Your task to perform on an android device: Search for hotels in Tokyo Image 0: 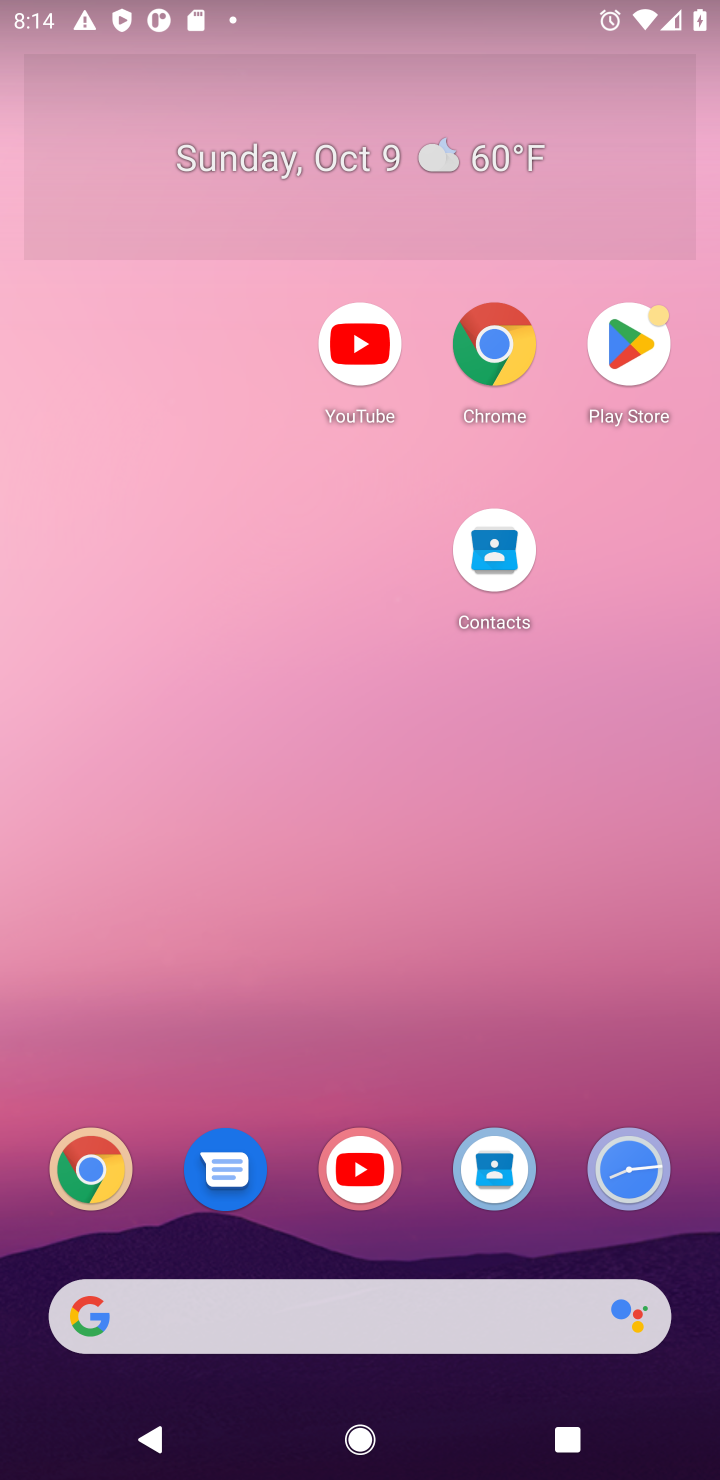
Step 0: drag from (431, 1259) to (357, 555)
Your task to perform on an android device: Search for hotels in Tokyo Image 1: 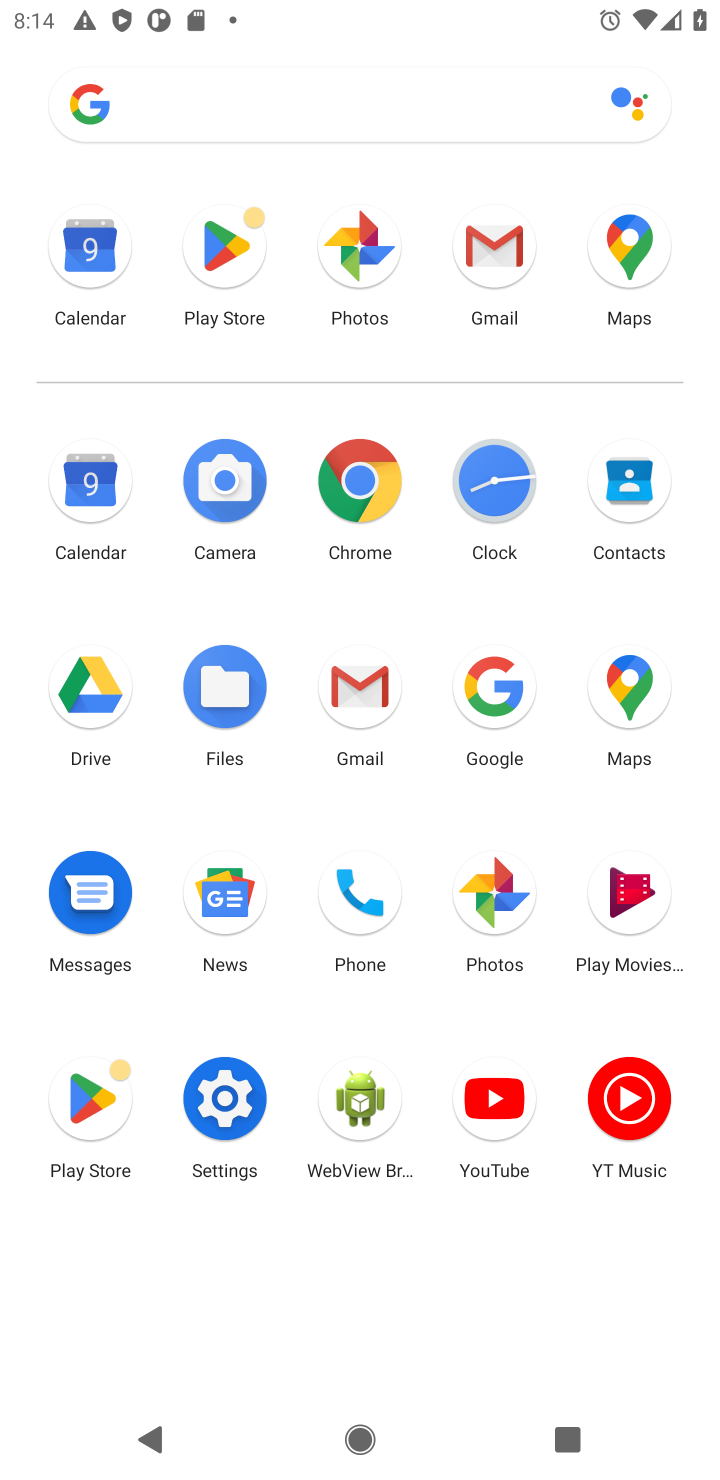
Step 1: click (364, 473)
Your task to perform on an android device: Search for hotels in Tokyo Image 2: 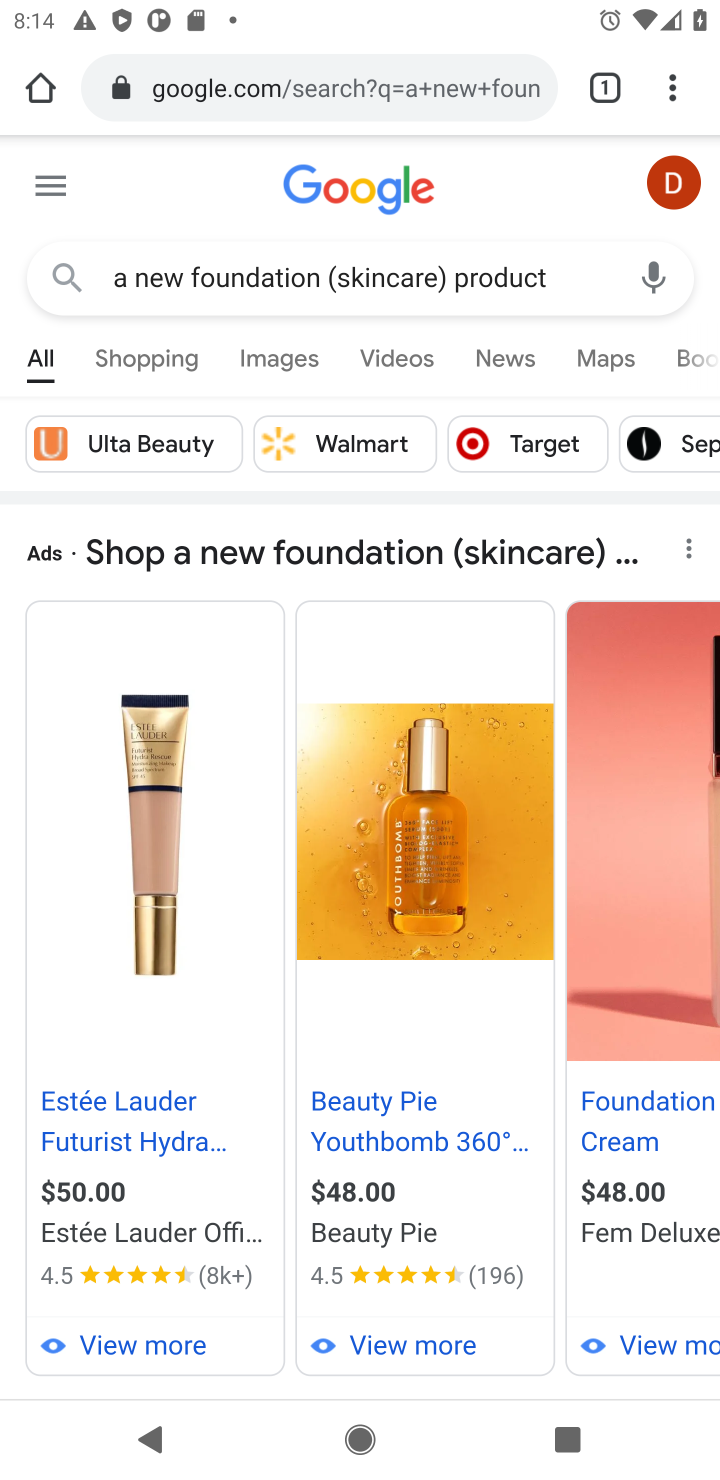
Step 2: click (345, 69)
Your task to perform on an android device: Search for hotels in Tokyo Image 3: 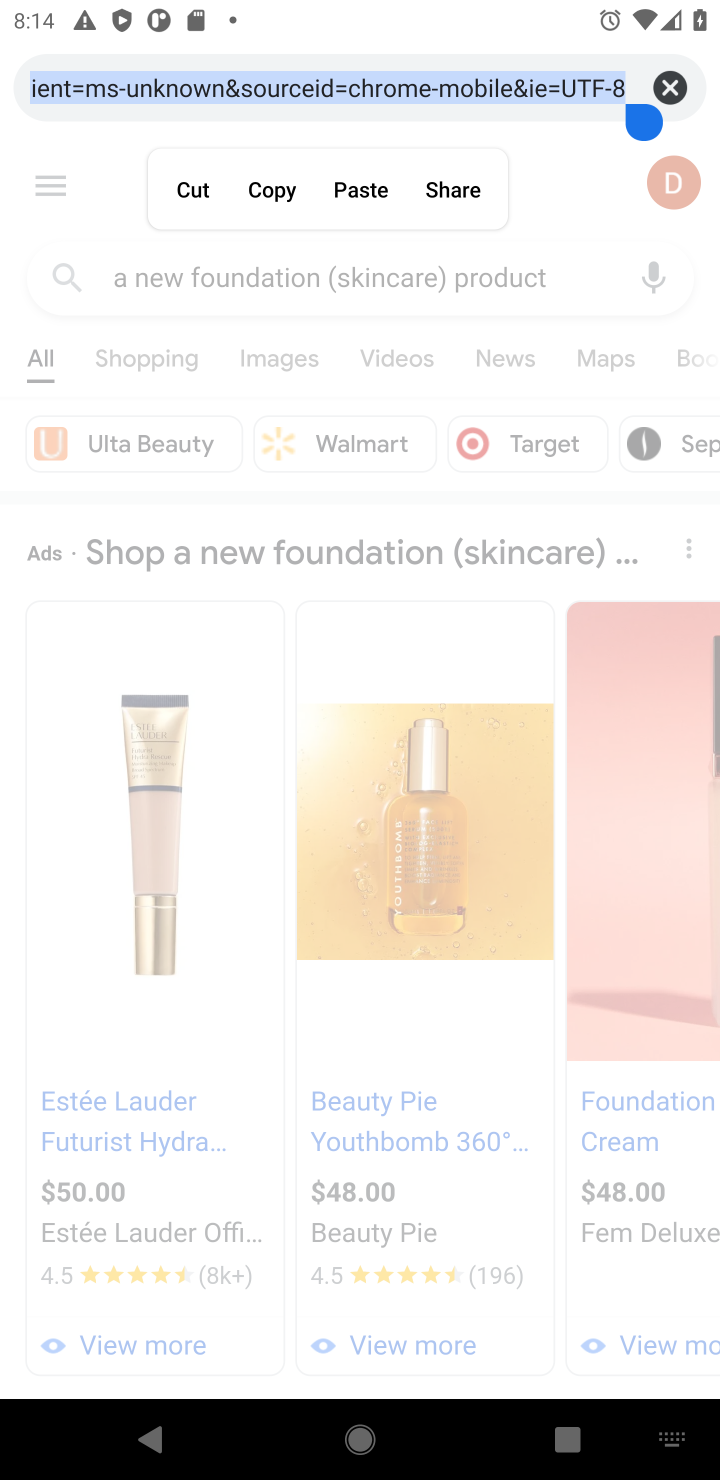
Step 3: type "hotels in Tokyo"
Your task to perform on an android device: Search for hotels in Tokyo Image 4: 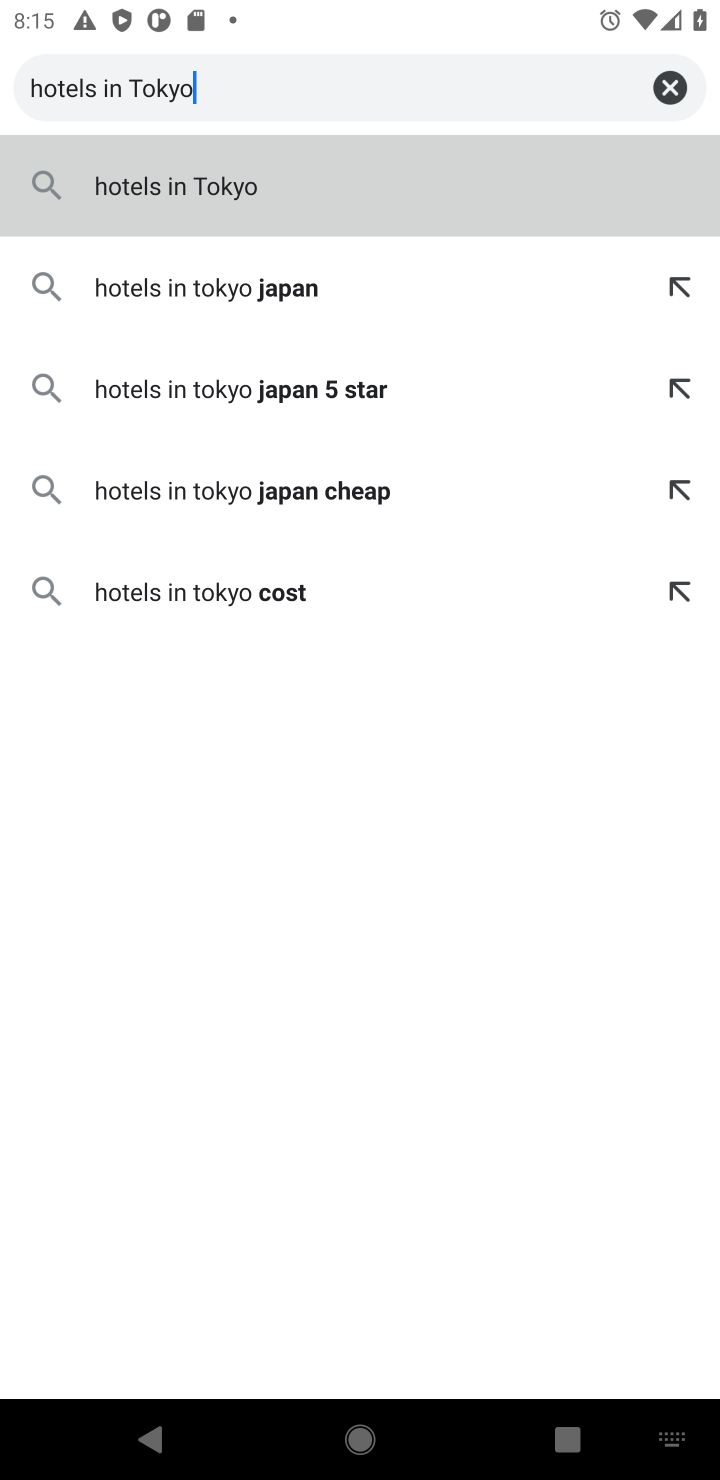
Step 4: press enter
Your task to perform on an android device: Search for hotels in Tokyo Image 5: 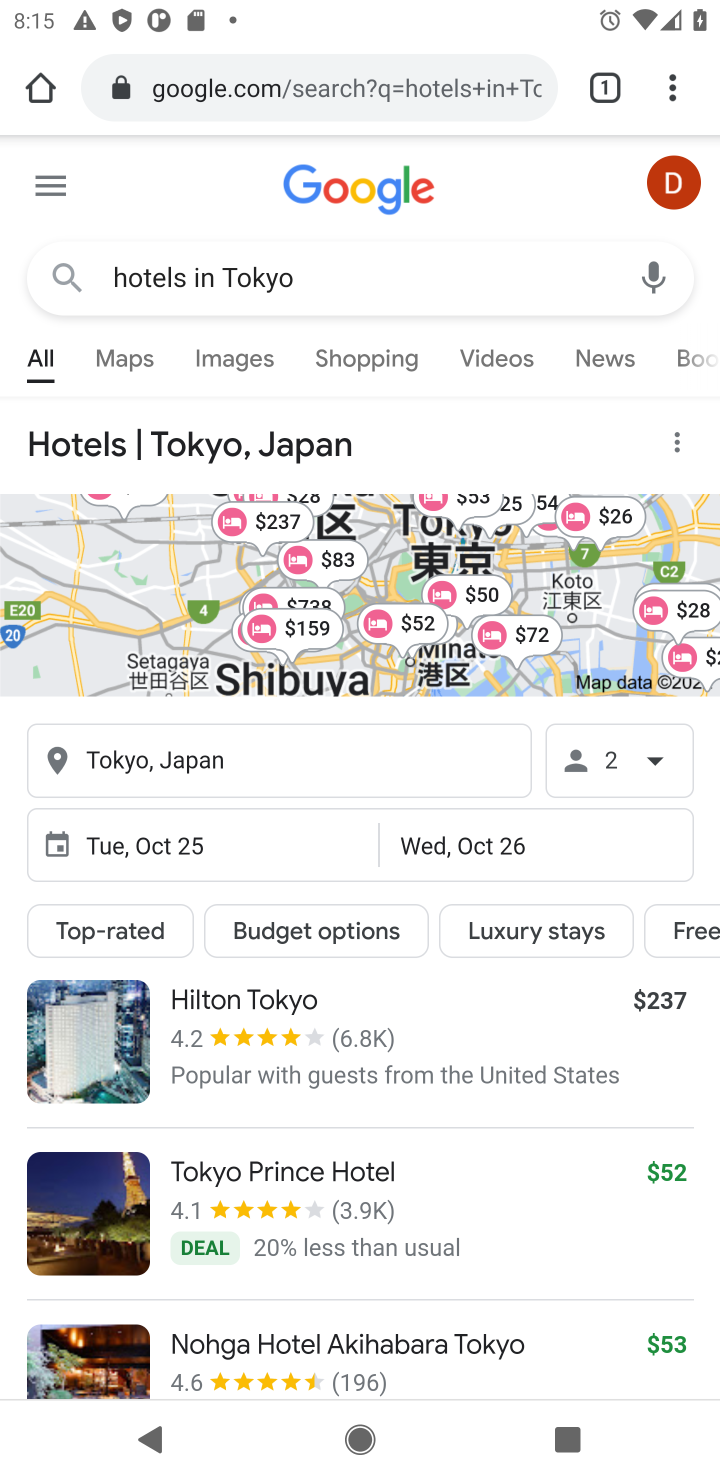
Step 5: task complete